Your task to perform on an android device: Open Android settings Image 0: 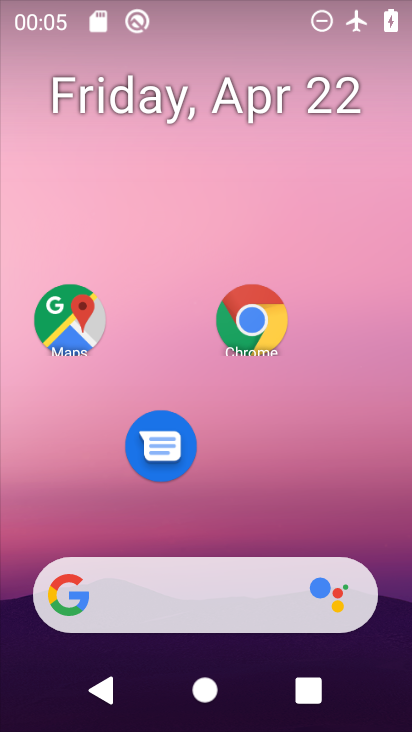
Step 0: drag from (216, 484) to (179, 208)
Your task to perform on an android device: Open Android settings Image 1: 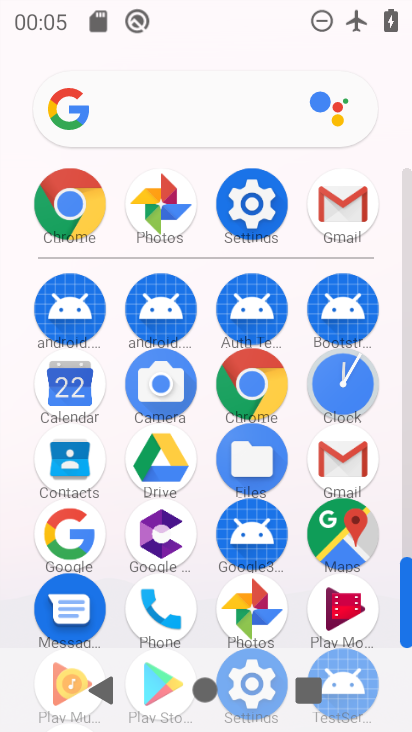
Step 1: click (223, 223)
Your task to perform on an android device: Open Android settings Image 2: 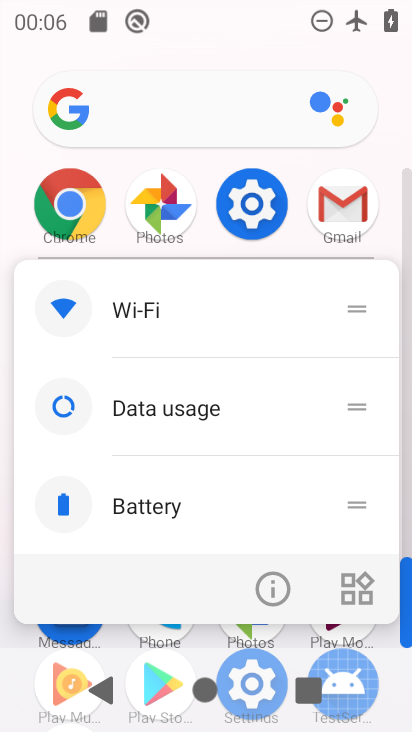
Step 2: click (278, 595)
Your task to perform on an android device: Open Android settings Image 3: 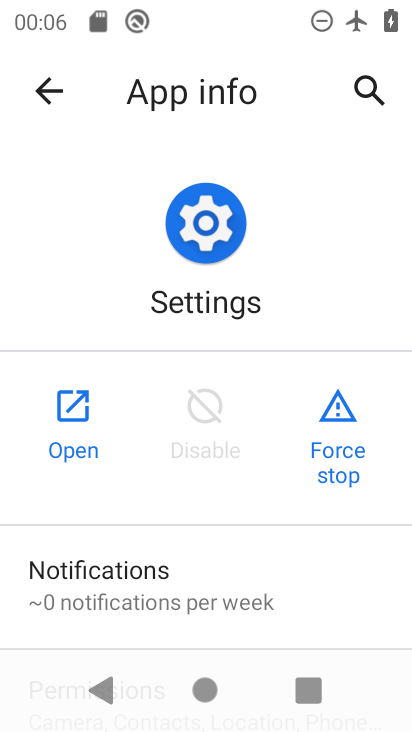
Step 3: click (75, 425)
Your task to perform on an android device: Open Android settings Image 4: 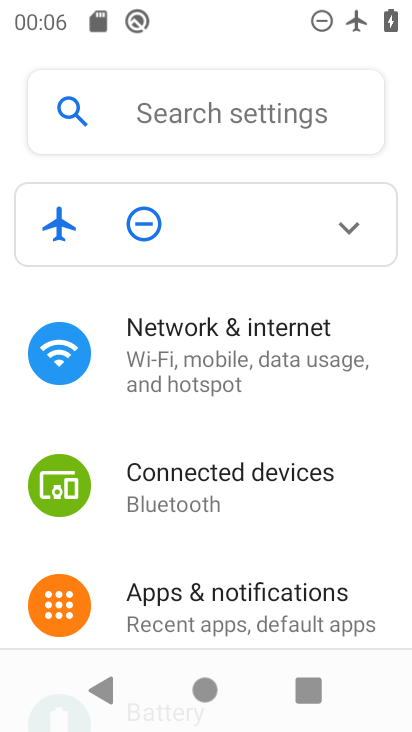
Step 4: drag from (214, 631) to (280, 176)
Your task to perform on an android device: Open Android settings Image 5: 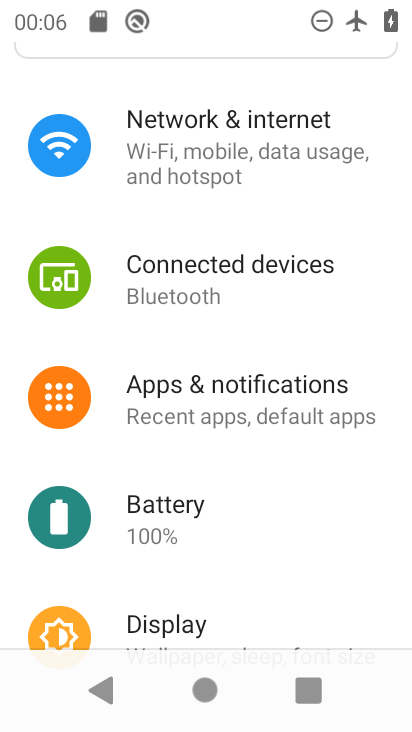
Step 5: drag from (231, 608) to (263, 287)
Your task to perform on an android device: Open Android settings Image 6: 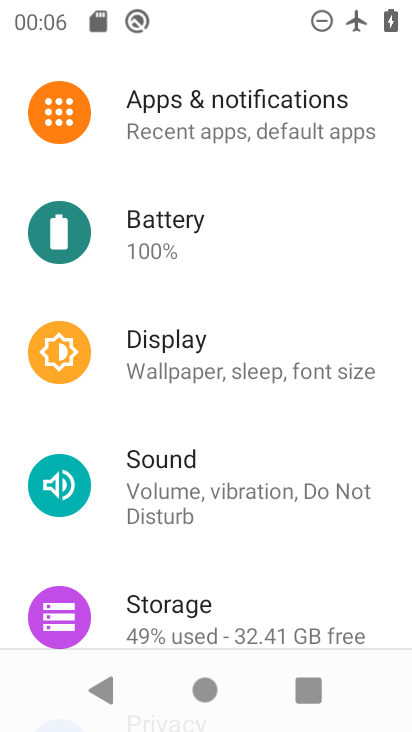
Step 6: drag from (247, 554) to (199, 65)
Your task to perform on an android device: Open Android settings Image 7: 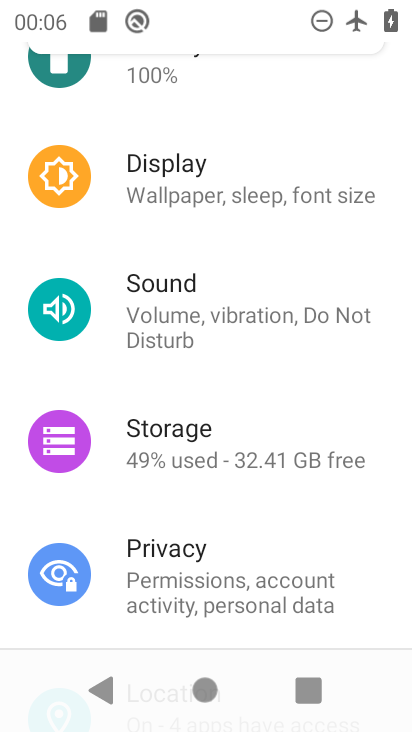
Step 7: drag from (219, 564) to (270, 0)
Your task to perform on an android device: Open Android settings Image 8: 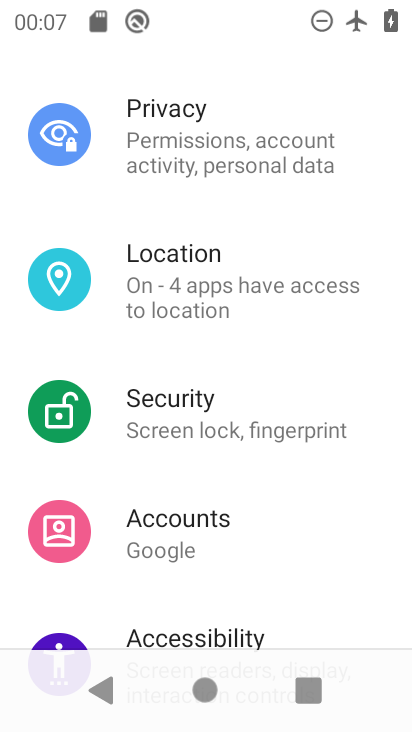
Step 8: drag from (191, 578) to (140, 25)
Your task to perform on an android device: Open Android settings Image 9: 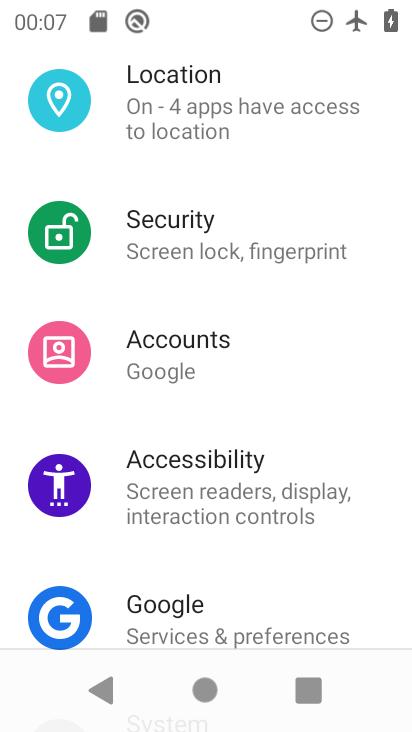
Step 9: drag from (217, 556) to (259, 6)
Your task to perform on an android device: Open Android settings Image 10: 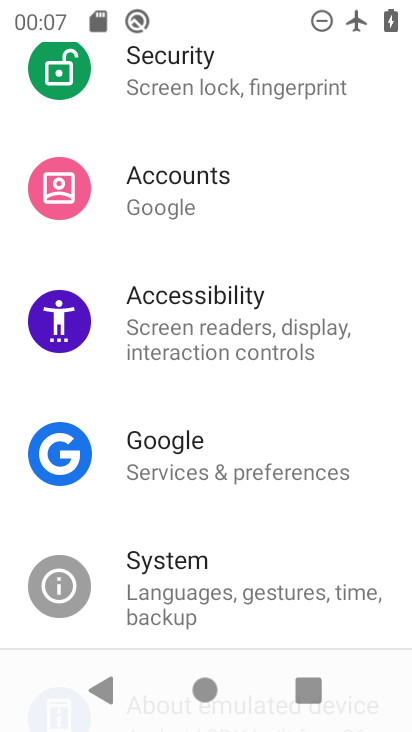
Step 10: click (197, 587)
Your task to perform on an android device: Open Android settings Image 11: 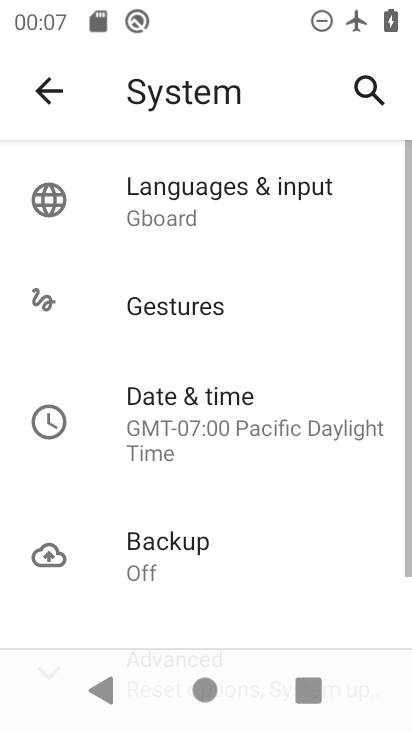
Step 11: click (43, 80)
Your task to perform on an android device: Open Android settings Image 12: 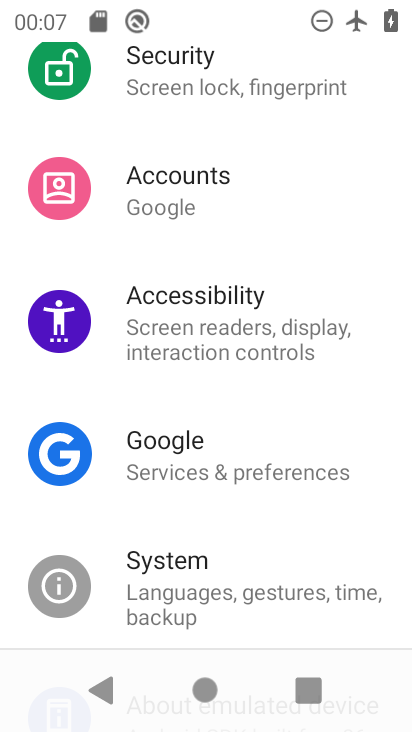
Step 12: drag from (204, 591) to (354, 58)
Your task to perform on an android device: Open Android settings Image 13: 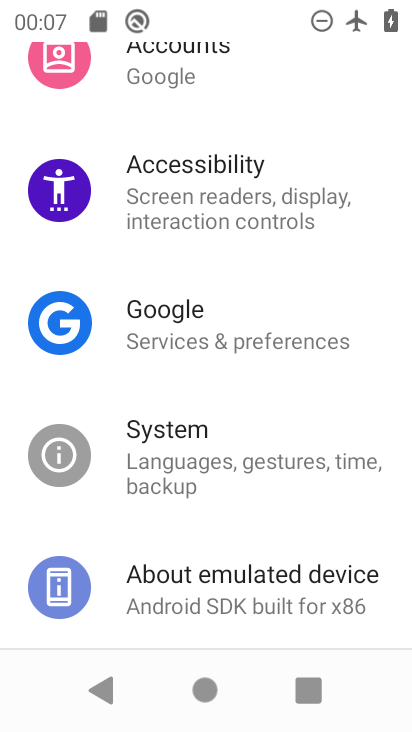
Step 13: click (235, 585)
Your task to perform on an android device: Open Android settings Image 14: 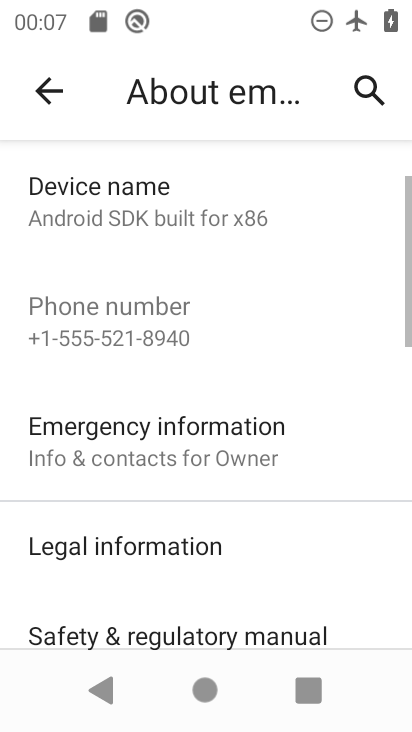
Step 14: drag from (182, 543) to (316, 142)
Your task to perform on an android device: Open Android settings Image 15: 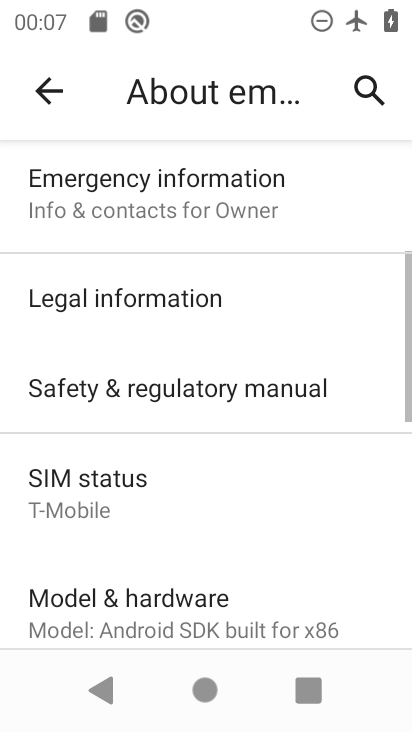
Step 15: drag from (167, 485) to (278, 150)
Your task to perform on an android device: Open Android settings Image 16: 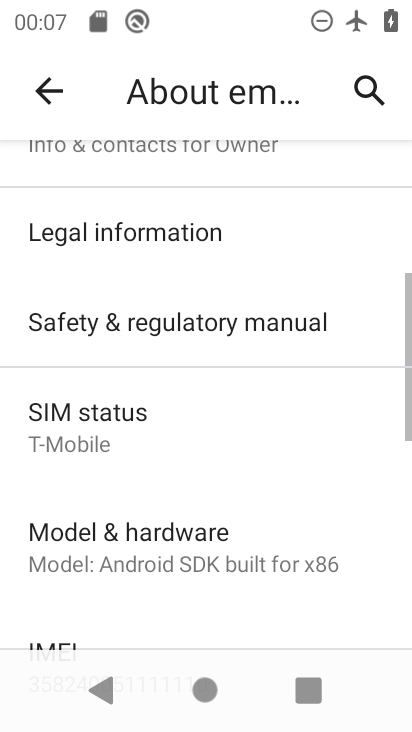
Step 16: drag from (138, 583) to (266, 183)
Your task to perform on an android device: Open Android settings Image 17: 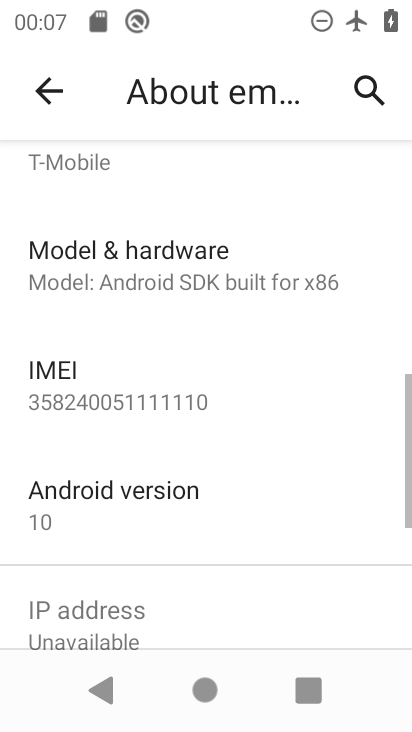
Step 17: click (126, 517)
Your task to perform on an android device: Open Android settings Image 18: 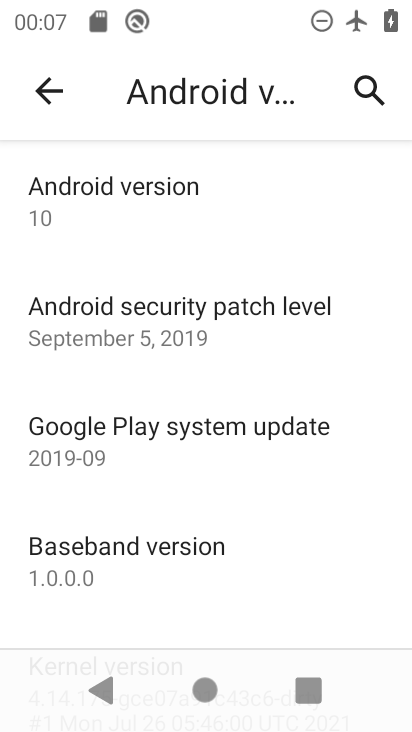
Step 18: click (247, 208)
Your task to perform on an android device: Open Android settings Image 19: 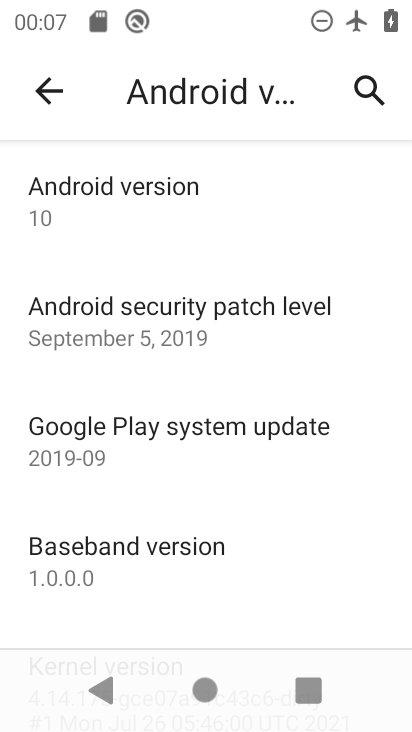
Step 19: click (233, 224)
Your task to perform on an android device: Open Android settings Image 20: 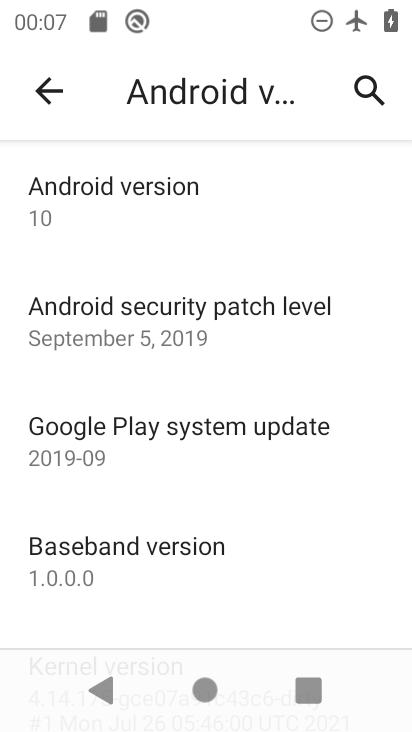
Step 20: task complete